Your task to perform on an android device: turn off picture-in-picture Image 0: 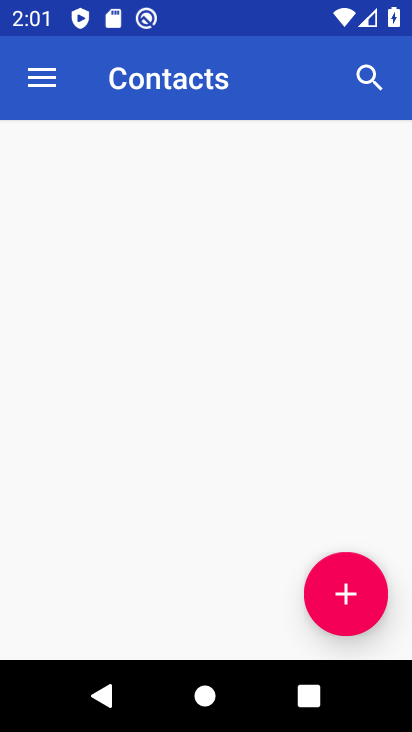
Step 0: press home button
Your task to perform on an android device: turn off picture-in-picture Image 1: 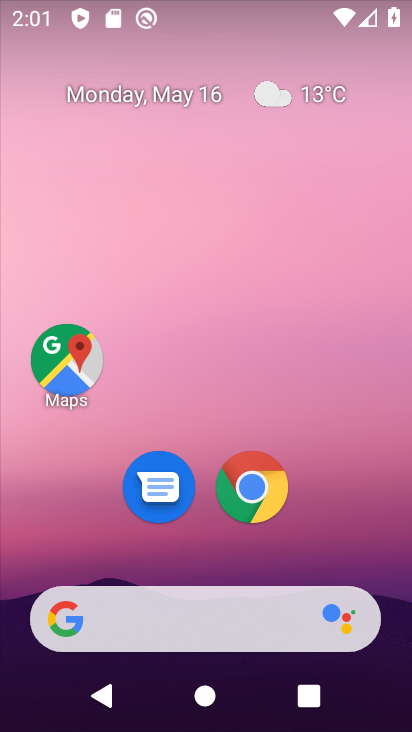
Step 1: drag from (317, 428) to (34, 76)
Your task to perform on an android device: turn off picture-in-picture Image 2: 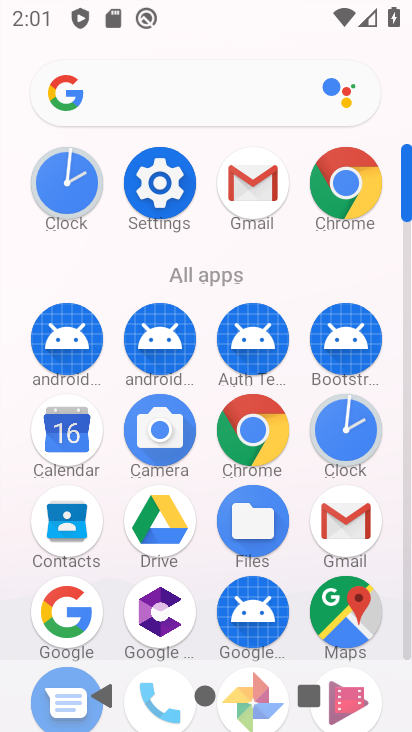
Step 2: click (152, 186)
Your task to perform on an android device: turn off picture-in-picture Image 3: 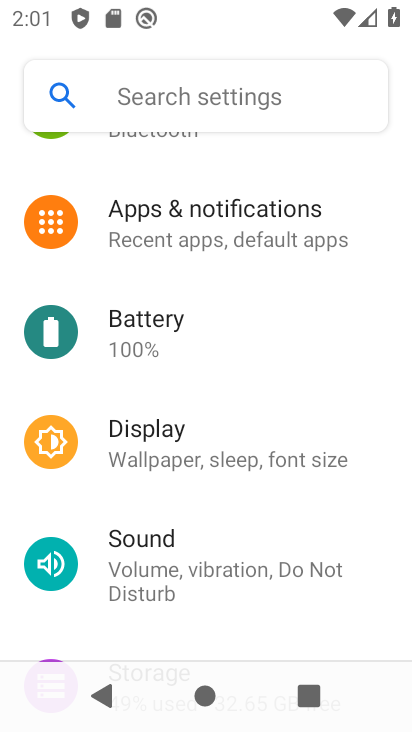
Step 3: click (209, 235)
Your task to perform on an android device: turn off picture-in-picture Image 4: 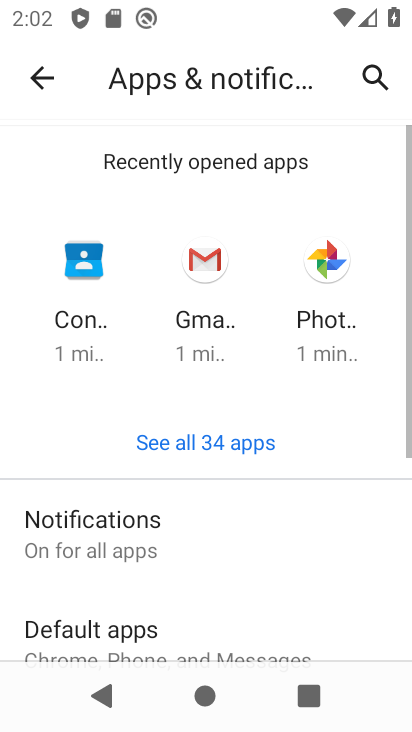
Step 4: drag from (94, 585) to (77, 277)
Your task to perform on an android device: turn off picture-in-picture Image 5: 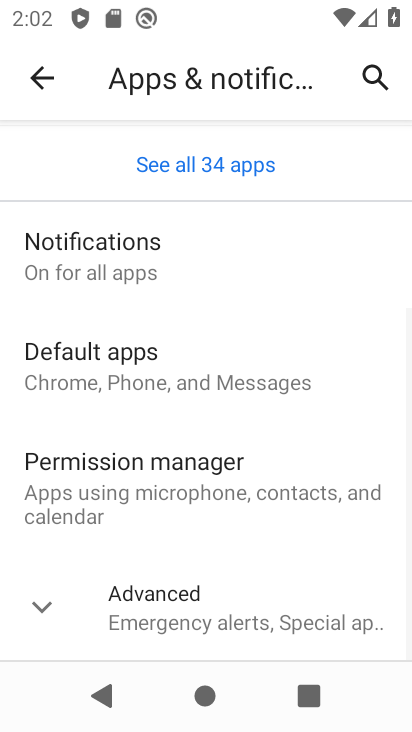
Step 5: click (143, 602)
Your task to perform on an android device: turn off picture-in-picture Image 6: 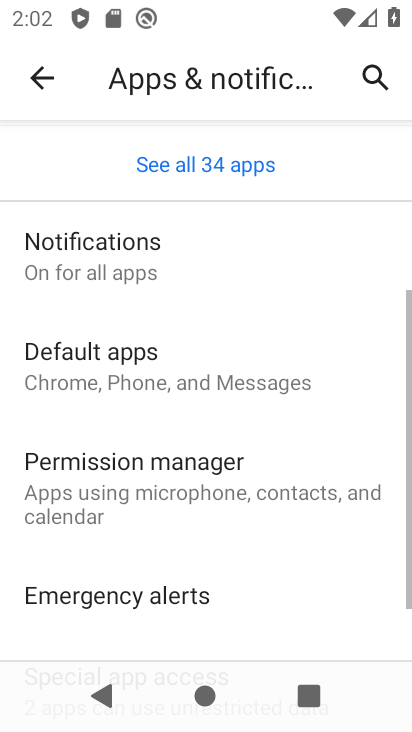
Step 6: drag from (136, 601) to (108, 257)
Your task to perform on an android device: turn off picture-in-picture Image 7: 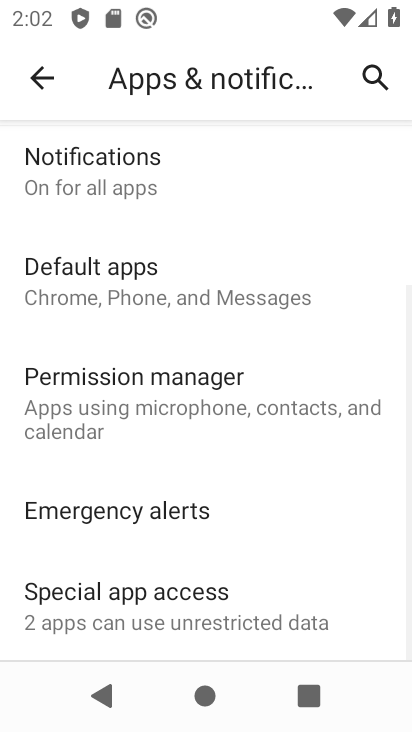
Step 7: click (169, 627)
Your task to perform on an android device: turn off picture-in-picture Image 8: 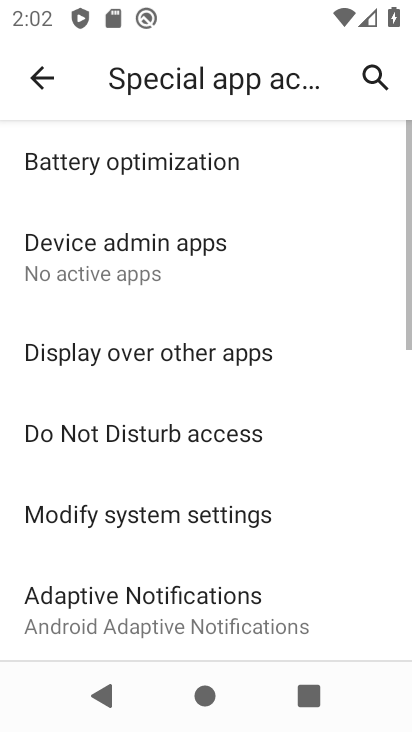
Step 8: drag from (172, 627) to (176, 331)
Your task to perform on an android device: turn off picture-in-picture Image 9: 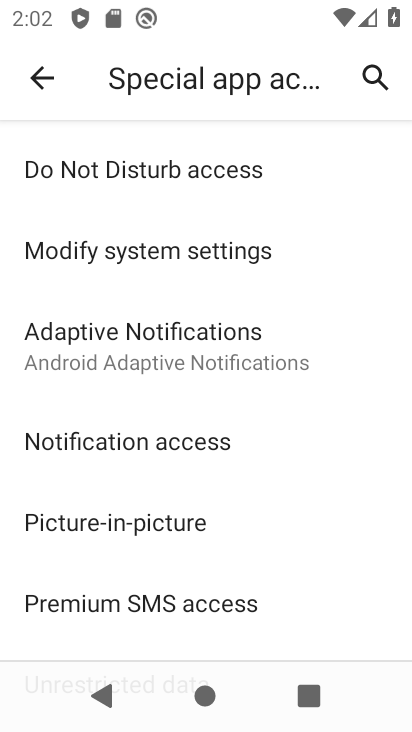
Step 9: click (150, 524)
Your task to perform on an android device: turn off picture-in-picture Image 10: 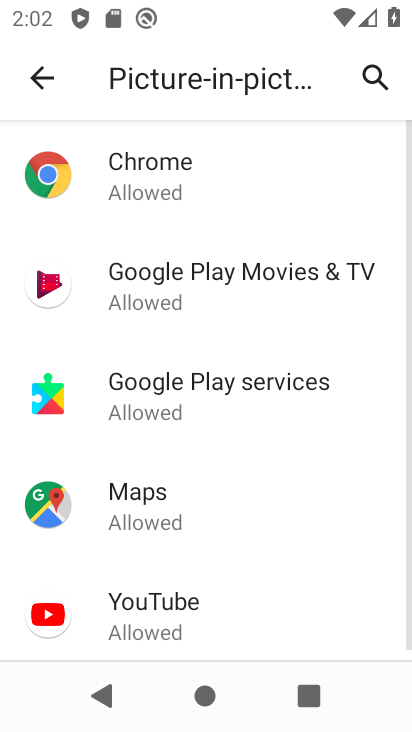
Step 10: click (139, 613)
Your task to perform on an android device: turn off picture-in-picture Image 11: 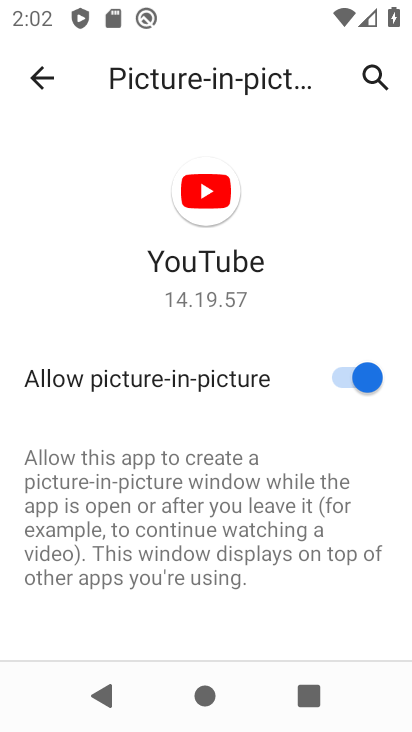
Step 11: click (346, 372)
Your task to perform on an android device: turn off picture-in-picture Image 12: 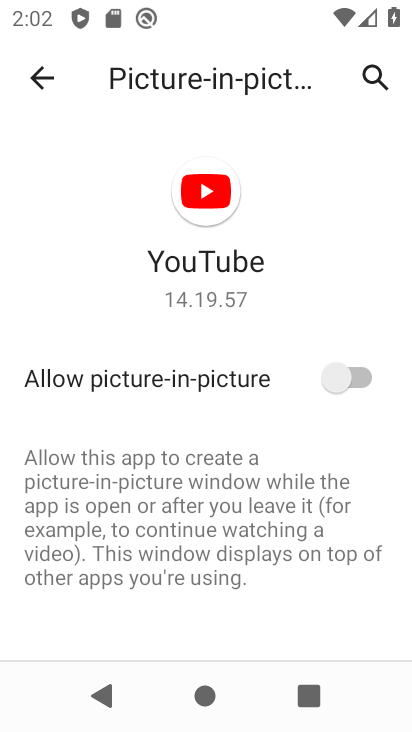
Step 12: task complete